Your task to perform on an android device: Open the web browser Image 0: 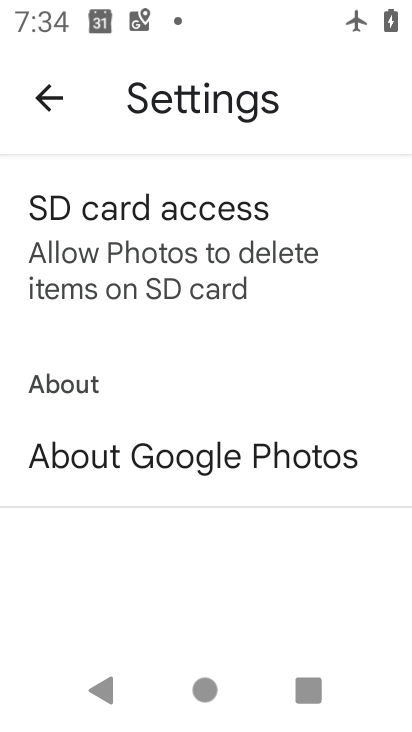
Step 0: press home button
Your task to perform on an android device: Open the web browser Image 1: 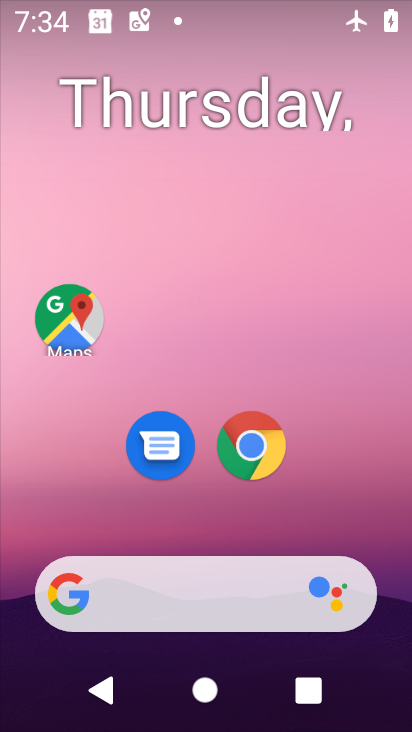
Step 1: drag from (394, 652) to (355, 131)
Your task to perform on an android device: Open the web browser Image 2: 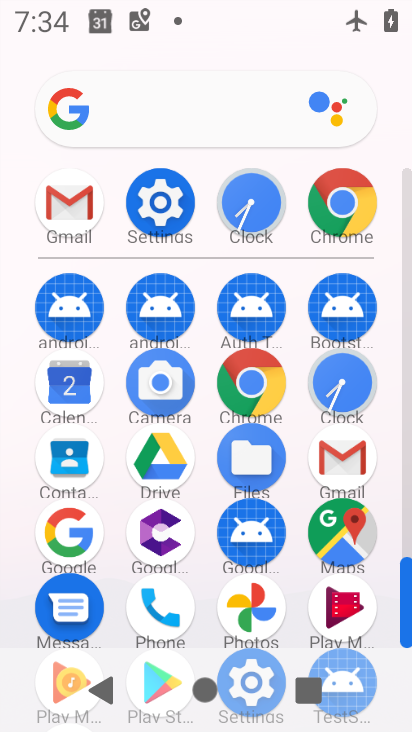
Step 2: click (57, 541)
Your task to perform on an android device: Open the web browser Image 3: 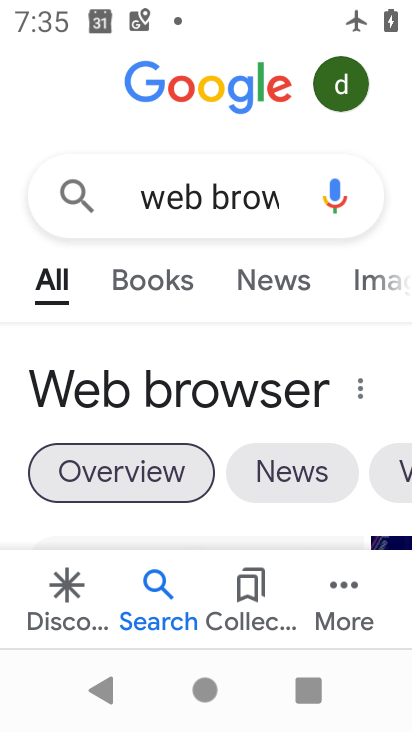
Step 3: press back button
Your task to perform on an android device: Open the web browser Image 4: 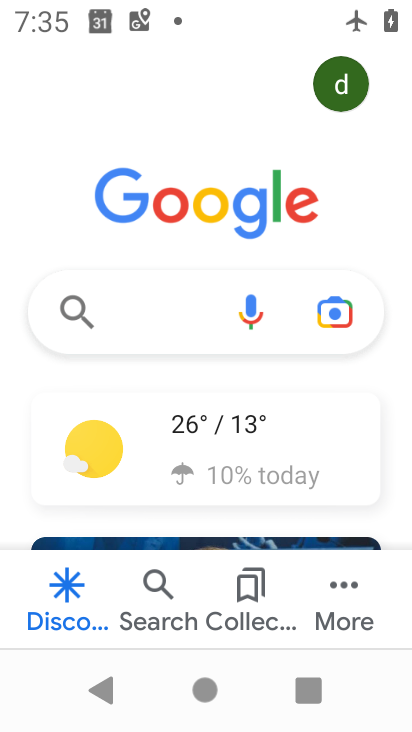
Step 4: click (179, 312)
Your task to perform on an android device: Open the web browser Image 5: 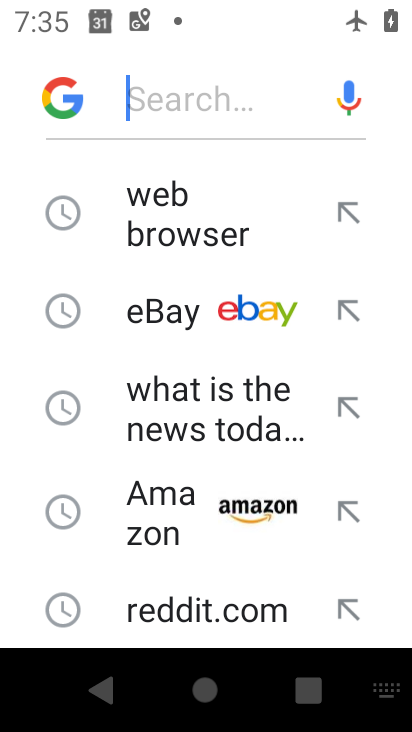
Step 5: click (190, 228)
Your task to perform on an android device: Open the web browser Image 6: 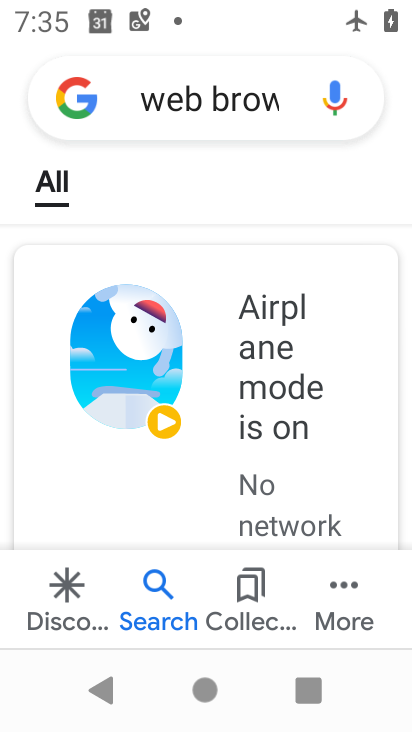
Step 6: task complete